Your task to perform on an android device: move an email to a new category in the gmail app Image 0: 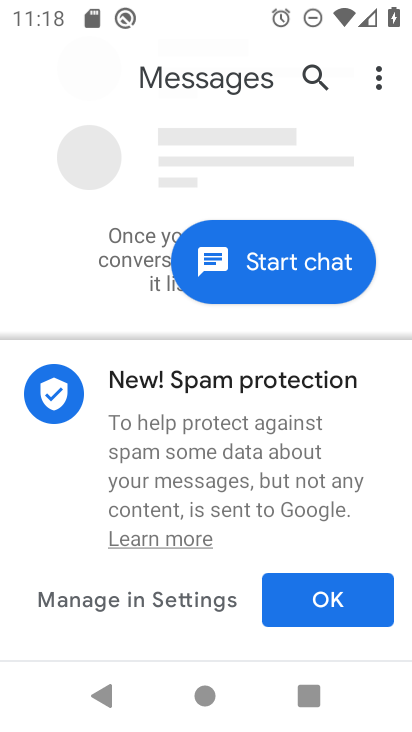
Step 0: press home button
Your task to perform on an android device: move an email to a new category in the gmail app Image 1: 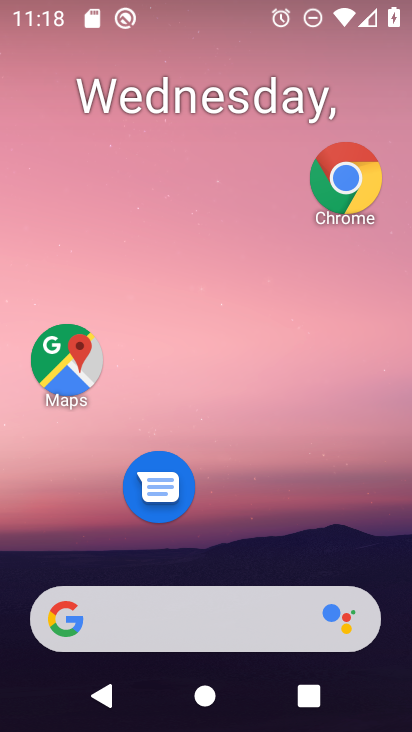
Step 1: drag from (169, 656) to (202, 9)
Your task to perform on an android device: move an email to a new category in the gmail app Image 2: 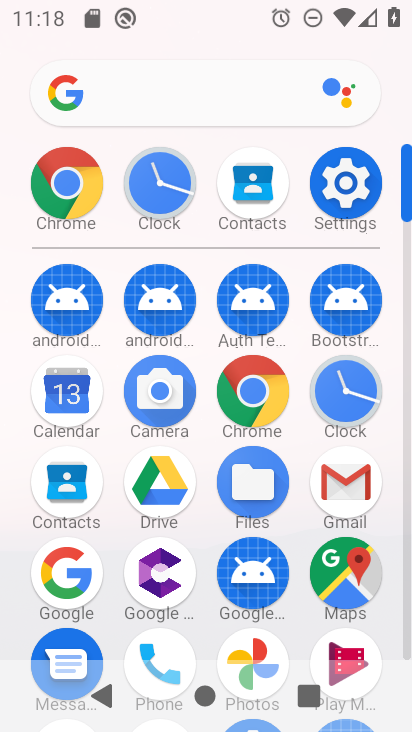
Step 2: click (364, 482)
Your task to perform on an android device: move an email to a new category in the gmail app Image 3: 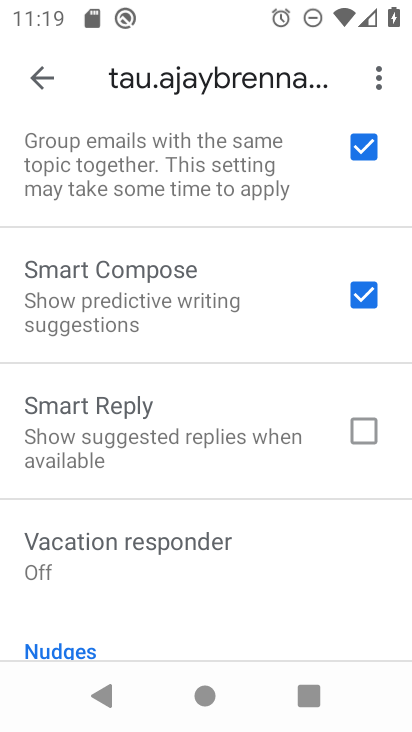
Step 3: click (27, 87)
Your task to perform on an android device: move an email to a new category in the gmail app Image 4: 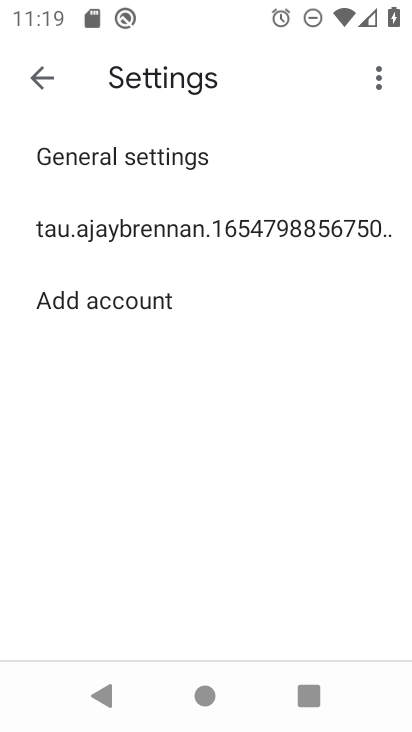
Step 4: click (44, 75)
Your task to perform on an android device: move an email to a new category in the gmail app Image 5: 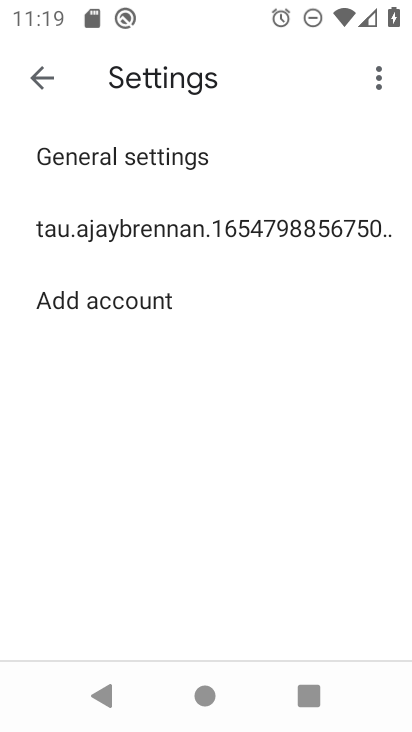
Step 5: click (44, 76)
Your task to perform on an android device: move an email to a new category in the gmail app Image 6: 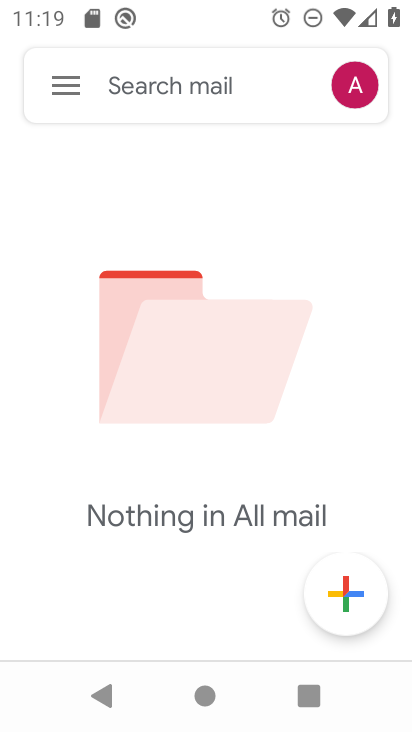
Step 6: task complete